Your task to perform on an android device: Open my contact list Image 0: 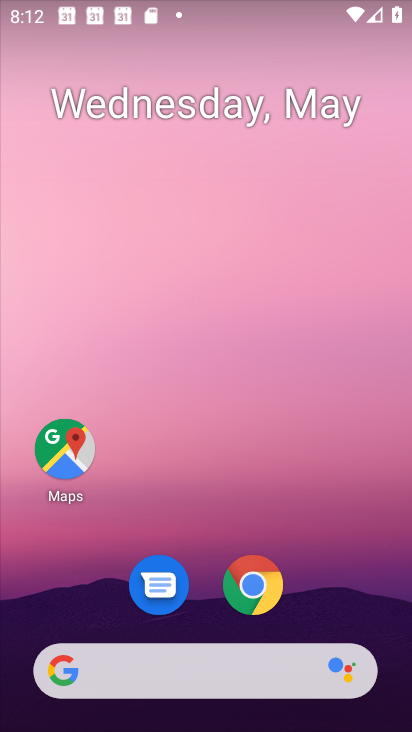
Step 0: drag from (344, 539) to (291, 119)
Your task to perform on an android device: Open my contact list Image 1: 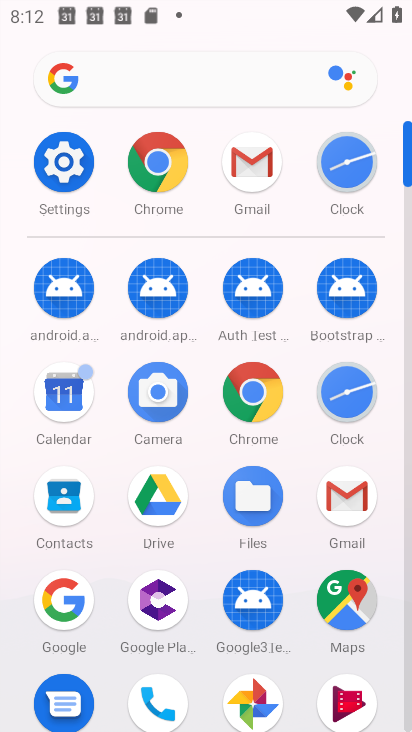
Step 1: click (68, 493)
Your task to perform on an android device: Open my contact list Image 2: 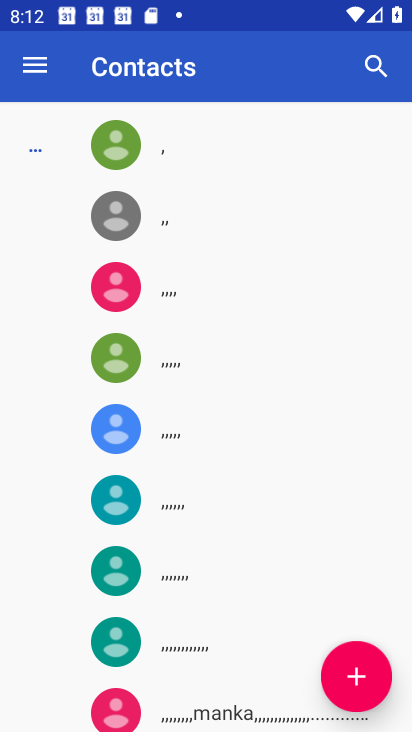
Step 2: task complete